Your task to perform on an android device: toggle location history Image 0: 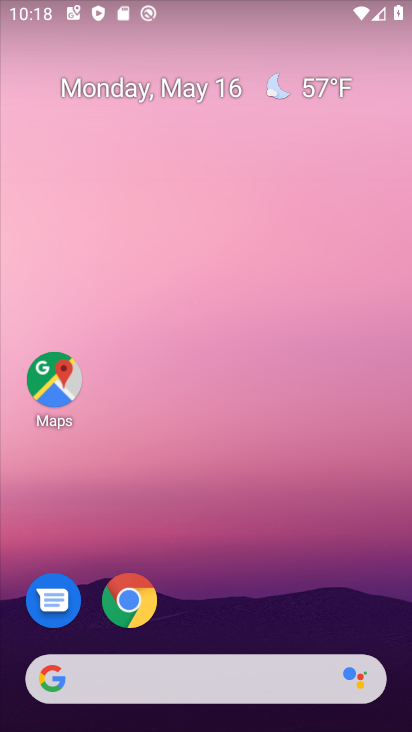
Step 0: drag from (297, 577) to (299, 181)
Your task to perform on an android device: toggle location history Image 1: 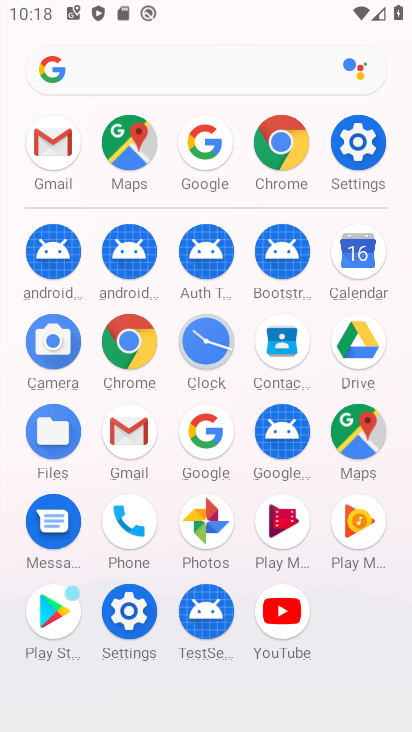
Step 1: click (368, 145)
Your task to perform on an android device: toggle location history Image 2: 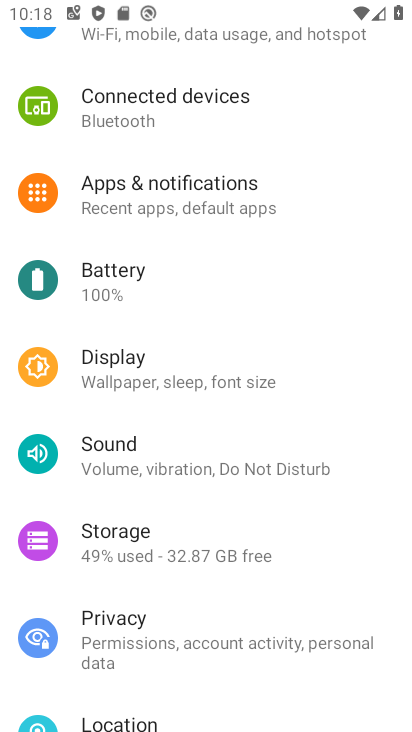
Step 2: drag from (247, 619) to (255, 366)
Your task to perform on an android device: toggle location history Image 3: 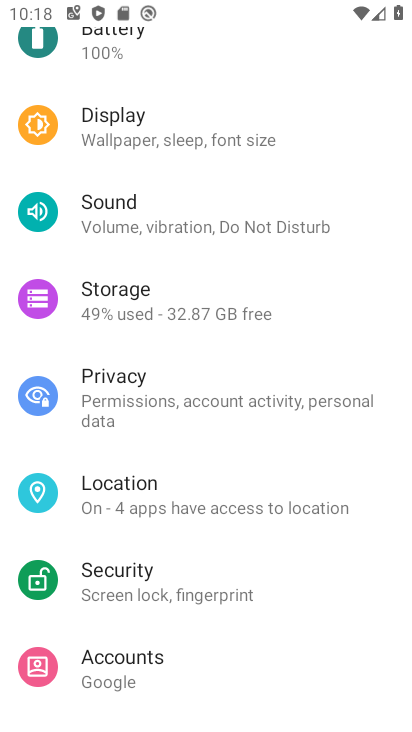
Step 3: click (161, 497)
Your task to perform on an android device: toggle location history Image 4: 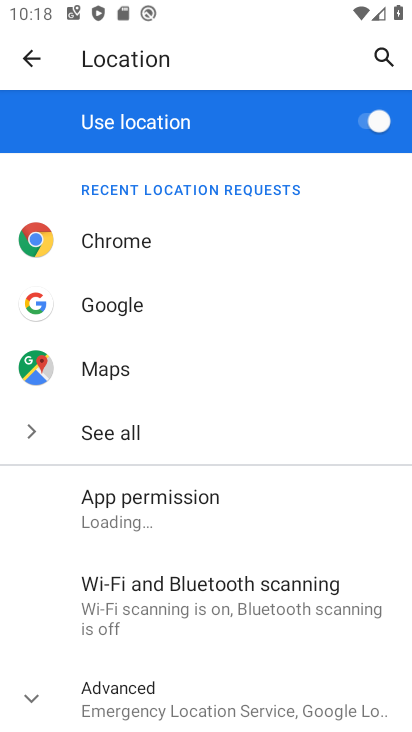
Step 4: drag from (243, 561) to (282, 277)
Your task to perform on an android device: toggle location history Image 5: 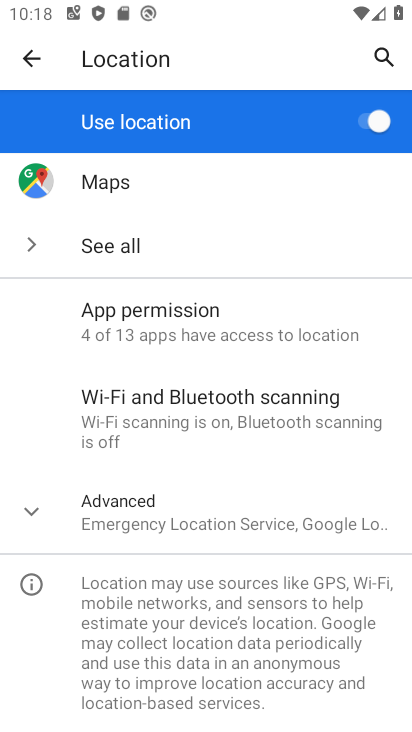
Step 5: click (230, 521)
Your task to perform on an android device: toggle location history Image 6: 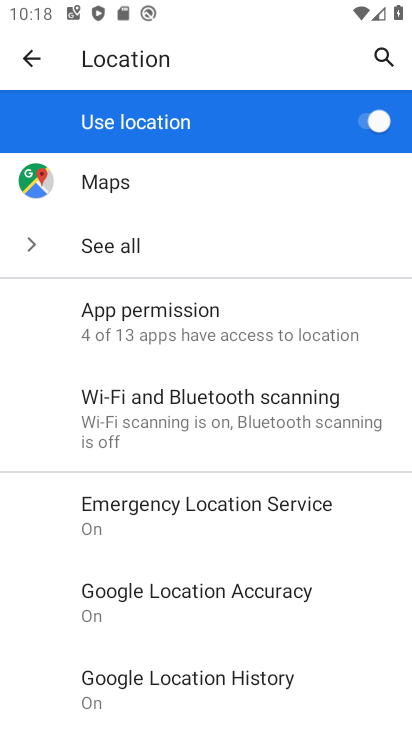
Step 6: click (213, 692)
Your task to perform on an android device: toggle location history Image 7: 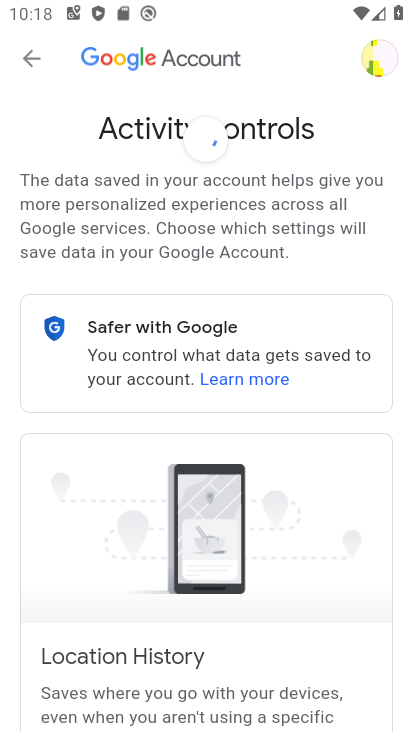
Step 7: drag from (233, 687) to (289, 335)
Your task to perform on an android device: toggle location history Image 8: 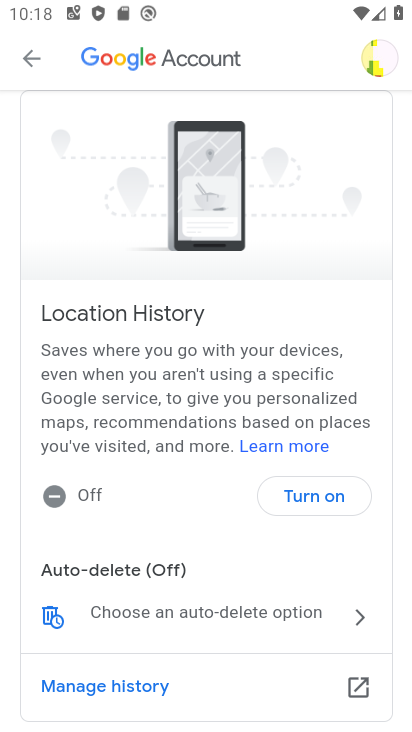
Step 8: drag from (224, 655) to (194, 388)
Your task to perform on an android device: toggle location history Image 9: 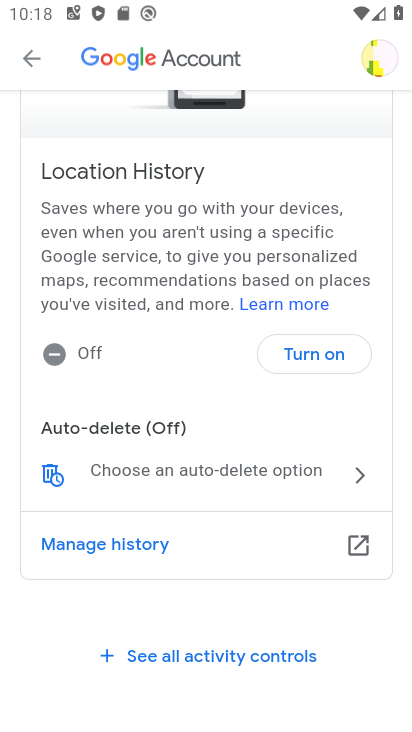
Step 9: click (162, 533)
Your task to perform on an android device: toggle location history Image 10: 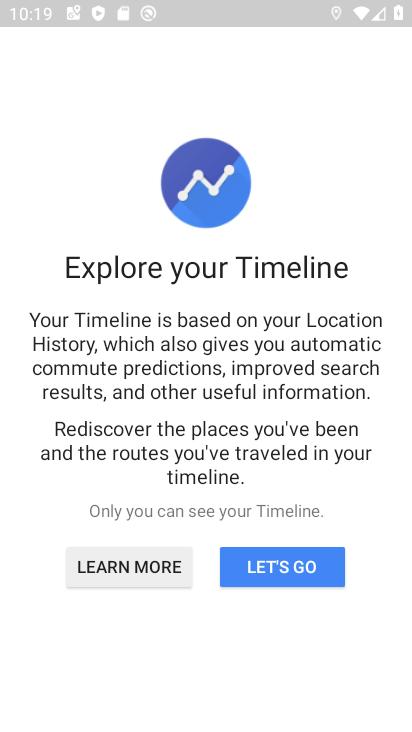
Step 10: click (251, 572)
Your task to perform on an android device: toggle location history Image 11: 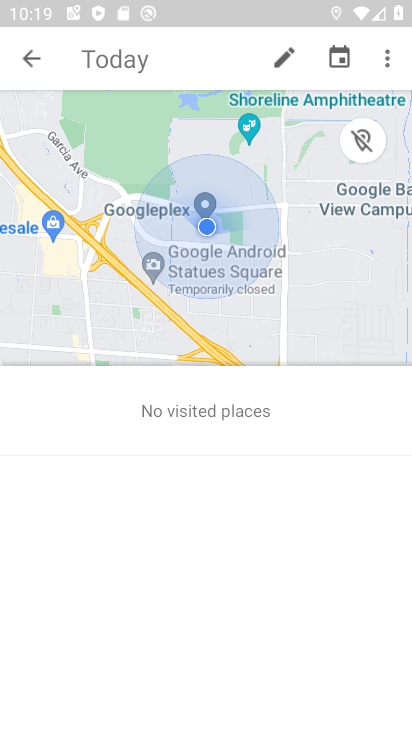
Step 11: click (389, 69)
Your task to perform on an android device: toggle location history Image 12: 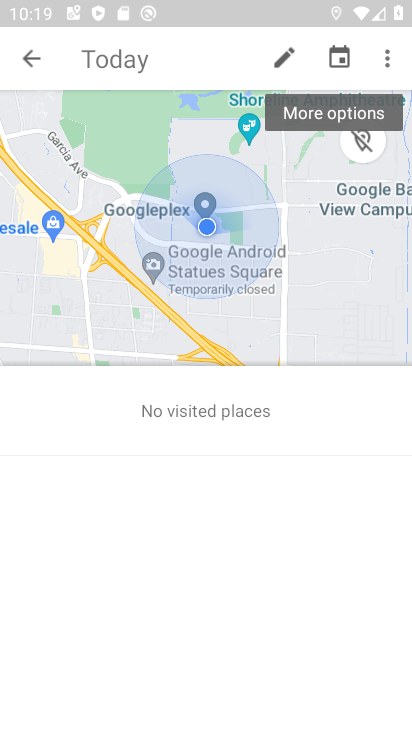
Step 12: click (389, 69)
Your task to perform on an android device: toggle location history Image 13: 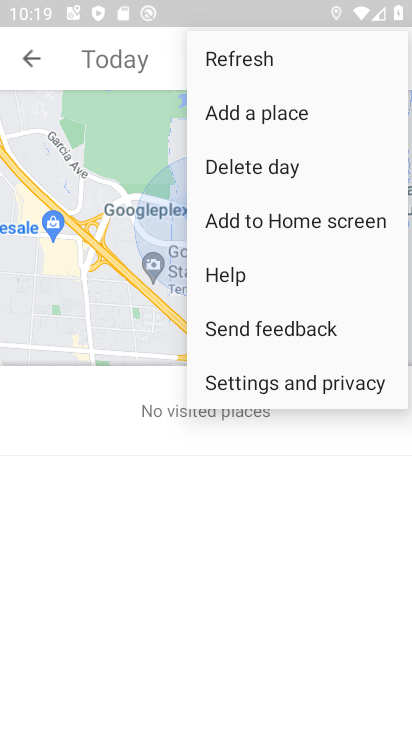
Step 13: click (244, 387)
Your task to perform on an android device: toggle location history Image 14: 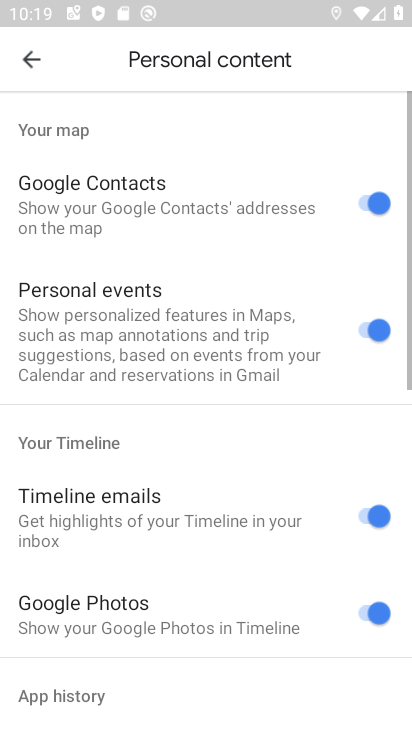
Step 14: drag from (206, 679) to (192, 164)
Your task to perform on an android device: toggle location history Image 15: 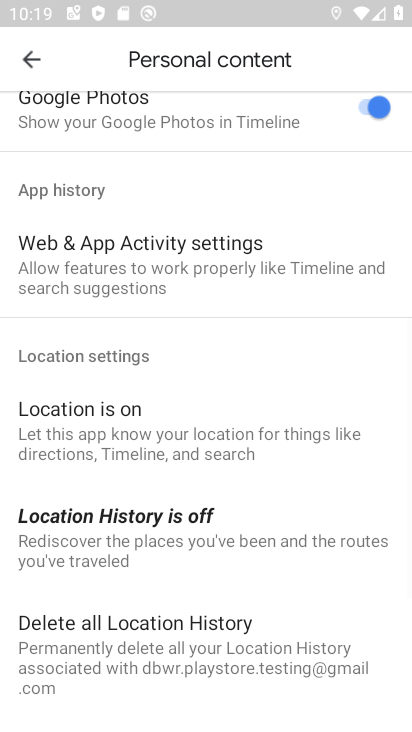
Step 15: drag from (166, 603) to (189, 271)
Your task to perform on an android device: toggle location history Image 16: 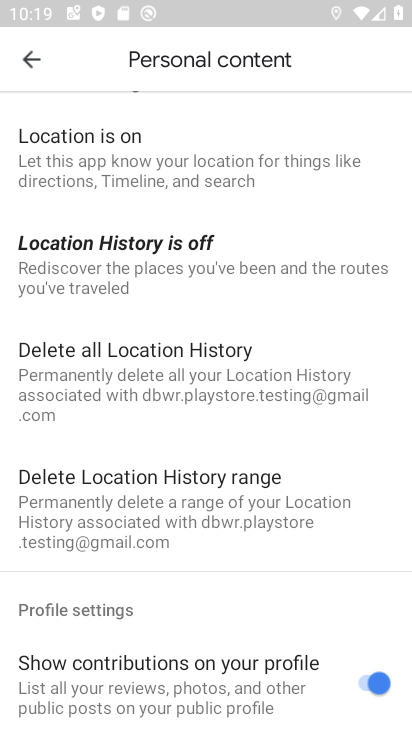
Step 16: click (110, 123)
Your task to perform on an android device: toggle location history Image 17: 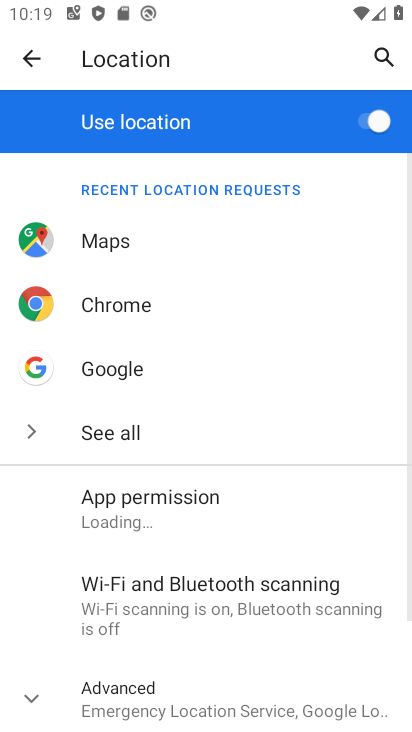
Step 17: click (392, 113)
Your task to perform on an android device: toggle location history Image 18: 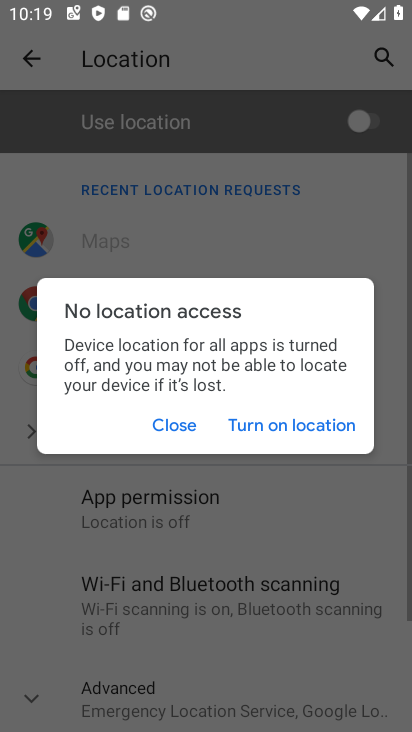
Step 18: task complete